Your task to perform on an android device: What's the weather going to be tomorrow? Image 0: 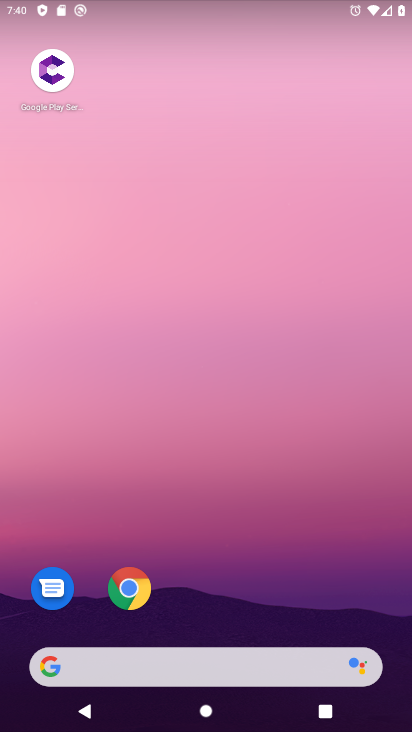
Step 0: click (182, 671)
Your task to perform on an android device: What's the weather going to be tomorrow? Image 1: 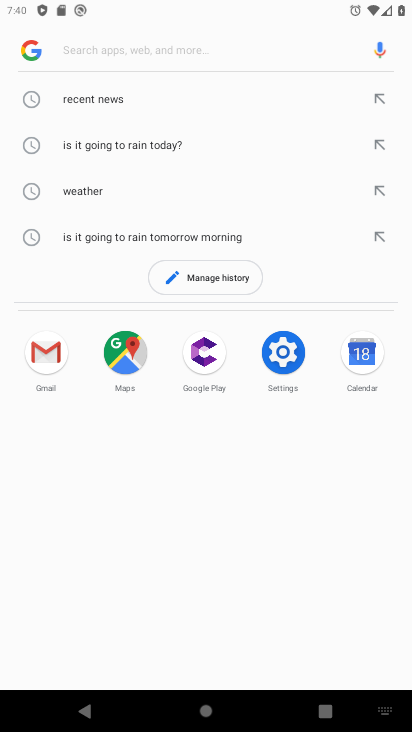
Step 1: click (90, 194)
Your task to perform on an android device: What's the weather going to be tomorrow? Image 2: 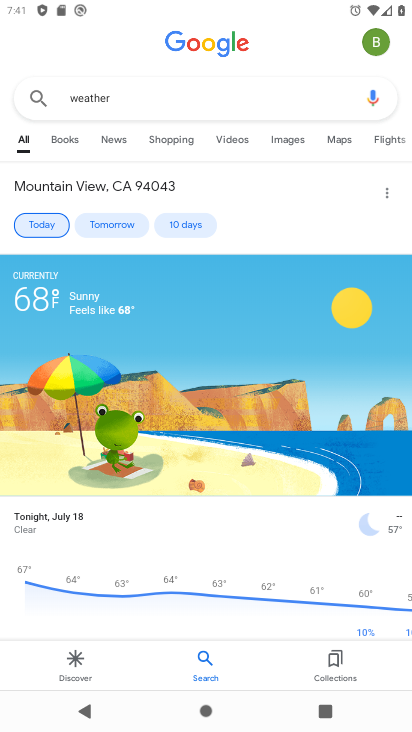
Step 2: click (115, 226)
Your task to perform on an android device: What's the weather going to be tomorrow? Image 3: 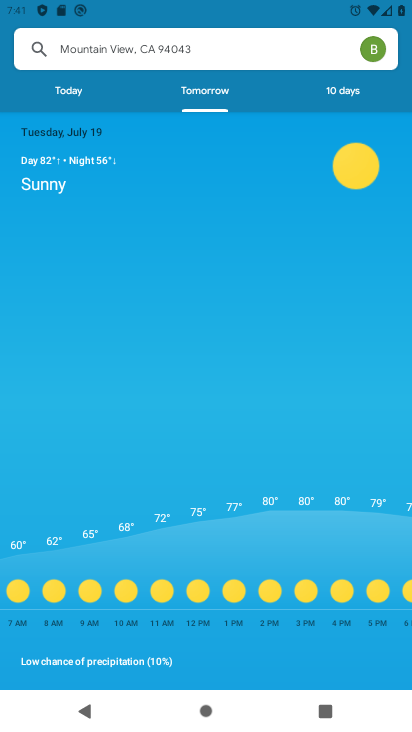
Step 3: task complete